Your task to perform on an android device: Search for pizza restaurants on Maps Image 0: 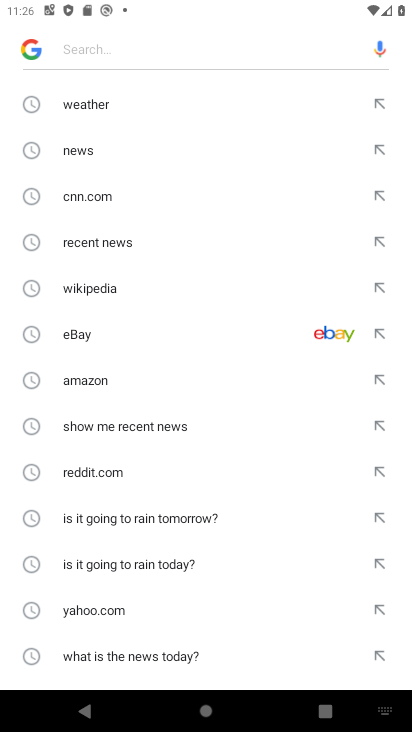
Step 0: press back button
Your task to perform on an android device: Search for pizza restaurants on Maps Image 1: 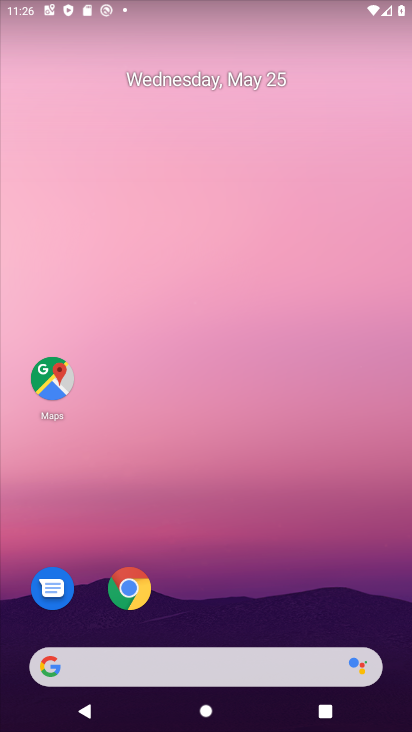
Step 1: click (47, 380)
Your task to perform on an android device: Search for pizza restaurants on Maps Image 2: 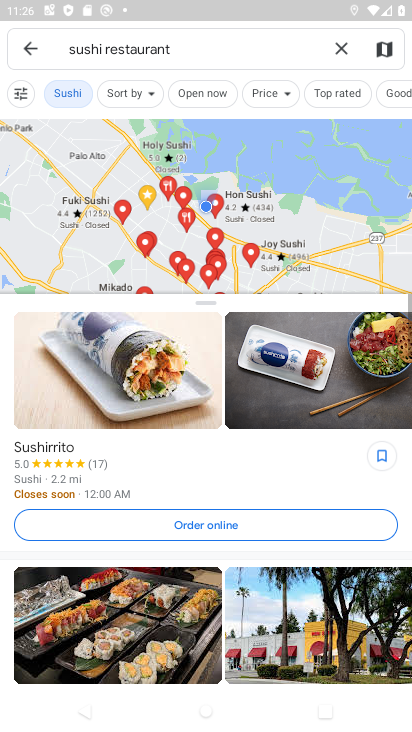
Step 2: click (331, 47)
Your task to perform on an android device: Search for pizza restaurants on Maps Image 3: 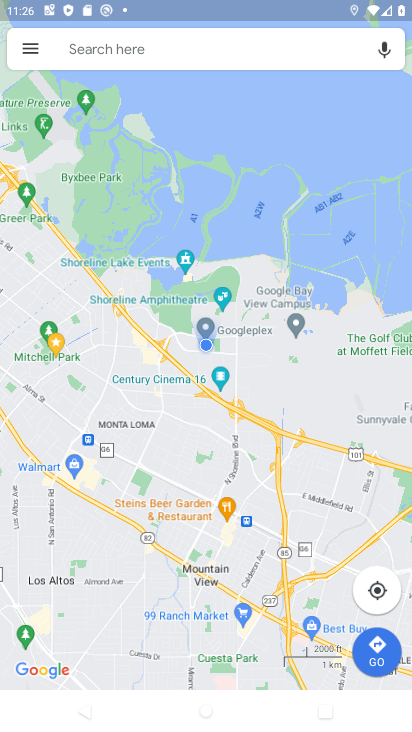
Step 3: click (175, 44)
Your task to perform on an android device: Search for pizza restaurants on Maps Image 4: 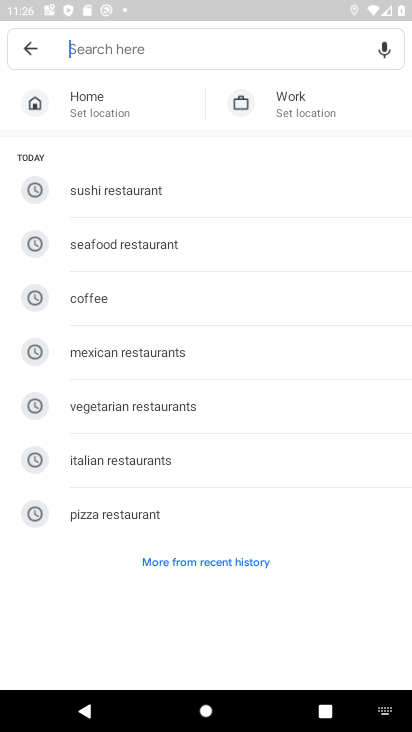
Step 4: click (156, 514)
Your task to perform on an android device: Search for pizza restaurants on Maps Image 5: 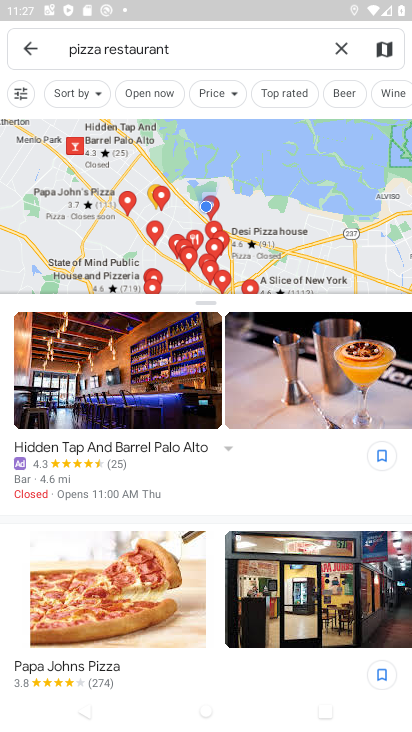
Step 5: task complete